Your task to perform on an android device: Search for sushi restaurants on Maps Image 0: 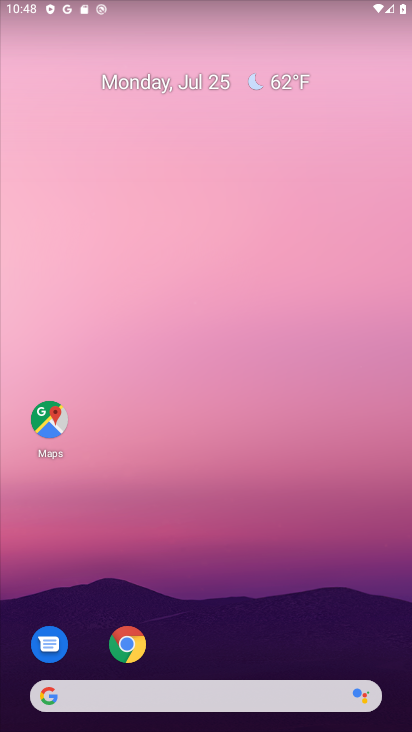
Step 0: drag from (277, 640) to (274, 90)
Your task to perform on an android device: Search for sushi restaurants on Maps Image 1: 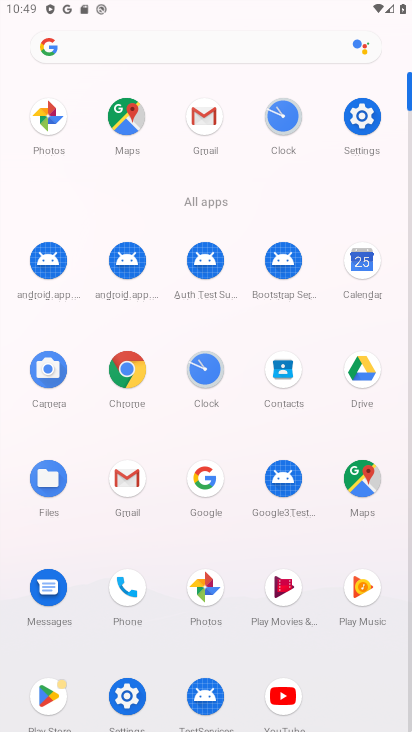
Step 1: click (106, 136)
Your task to perform on an android device: Search for sushi restaurants on Maps Image 2: 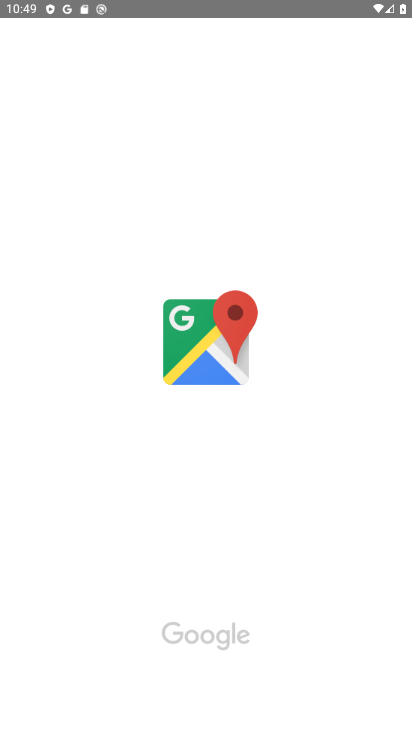
Step 2: task complete